Your task to perform on an android device: Open Amazon Image 0: 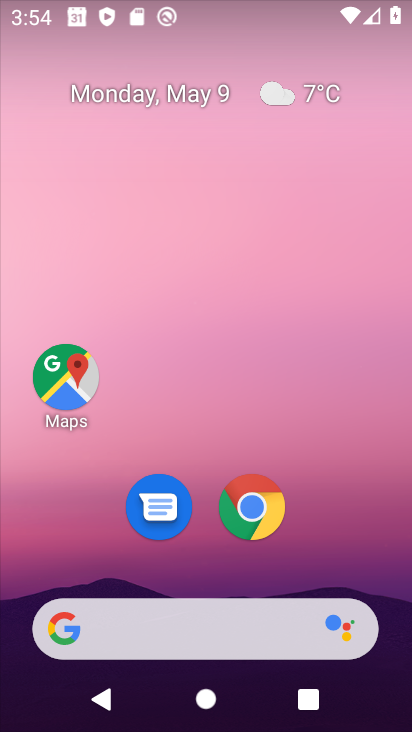
Step 0: drag from (274, 659) to (247, 168)
Your task to perform on an android device: Open Amazon Image 1: 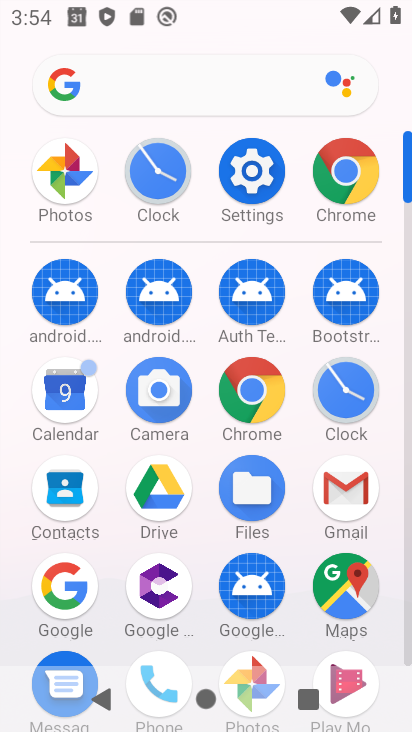
Step 1: click (342, 147)
Your task to perform on an android device: Open Amazon Image 2: 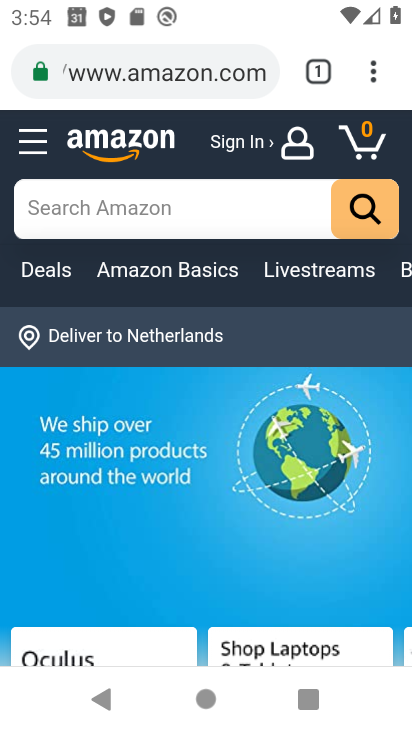
Step 2: click (213, 75)
Your task to perform on an android device: Open Amazon Image 3: 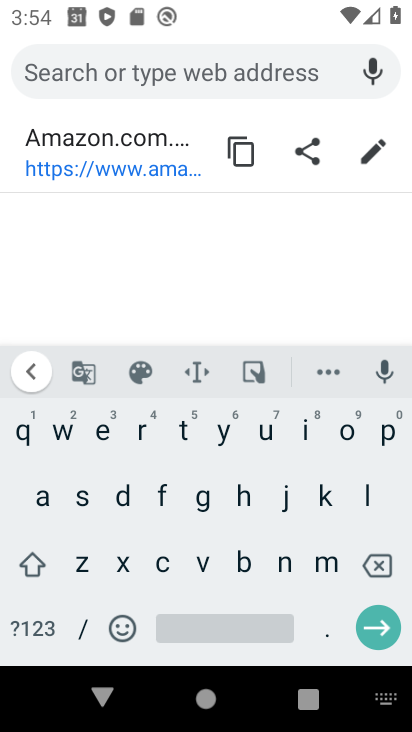
Step 3: click (137, 145)
Your task to perform on an android device: Open Amazon Image 4: 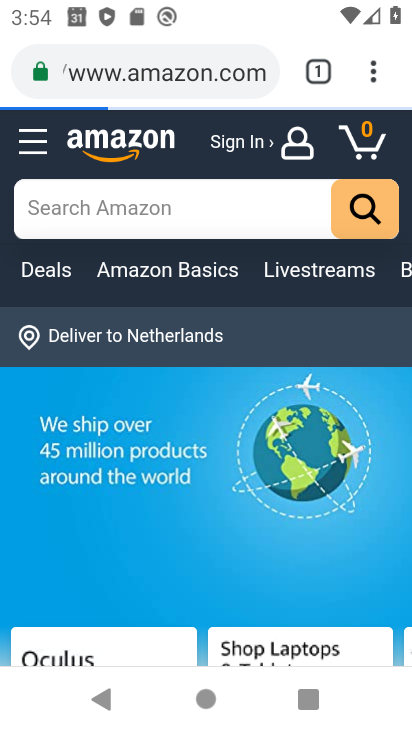
Step 4: task complete